Your task to perform on an android device: change the upload size in google photos Image 0: 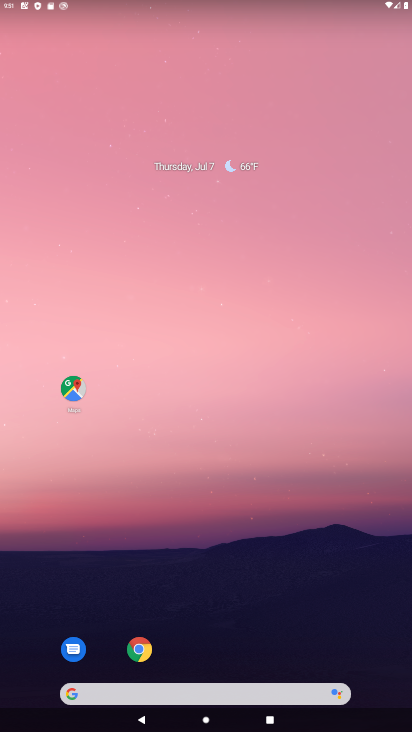
Step 0: press home button
Your task to perform on an android device: change the upload size in google photos Image 1: 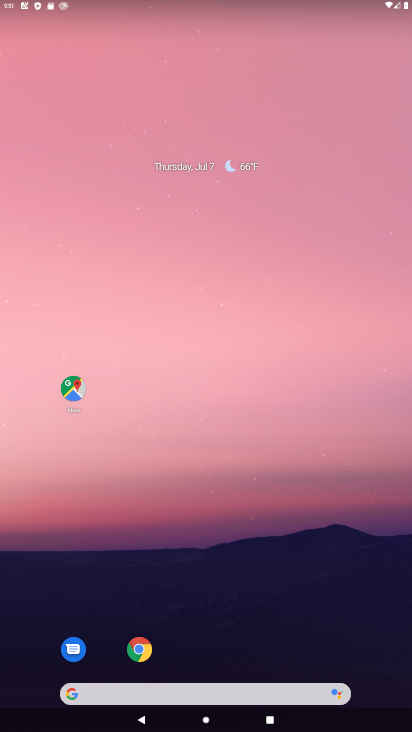
Step 1: drag from (166, 657) to (222, 68)
Your task to perform on an android device: change the upload size in google photos Image 2: 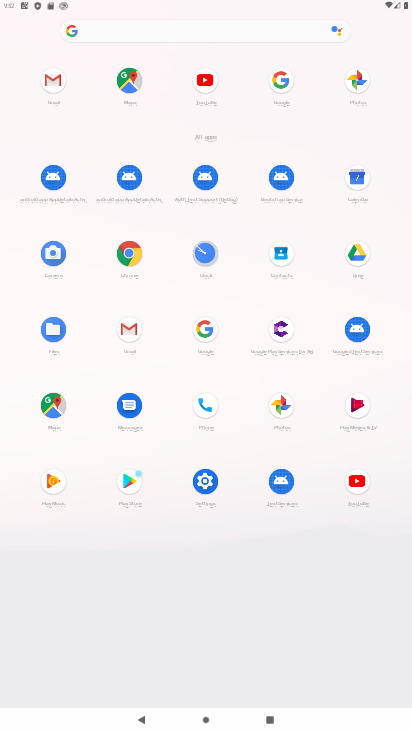
Step 2: click (356, 76)
Your task to perform on an android device: change the upload size in google photos Image 3: 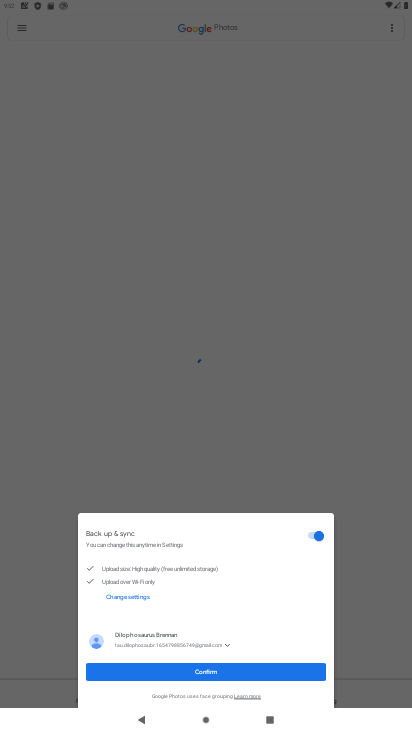
Step 3: click (201, 671)
Your task to perform on an android device: change the upload size in google photos Image 4: 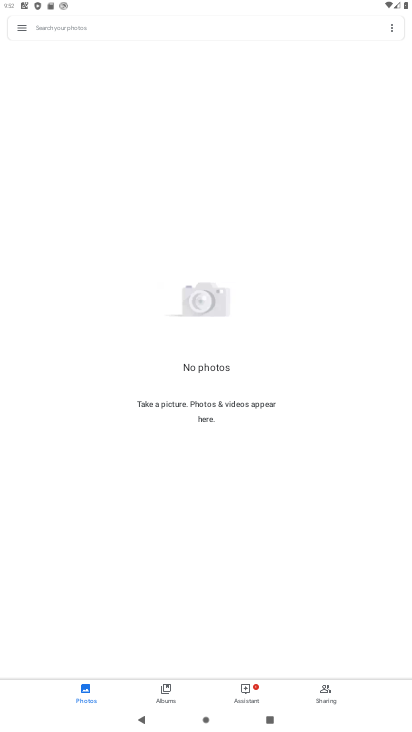
Step 4: click (25, 25)
Your task to perform on an android device: change the upload size in google photos Image 5: 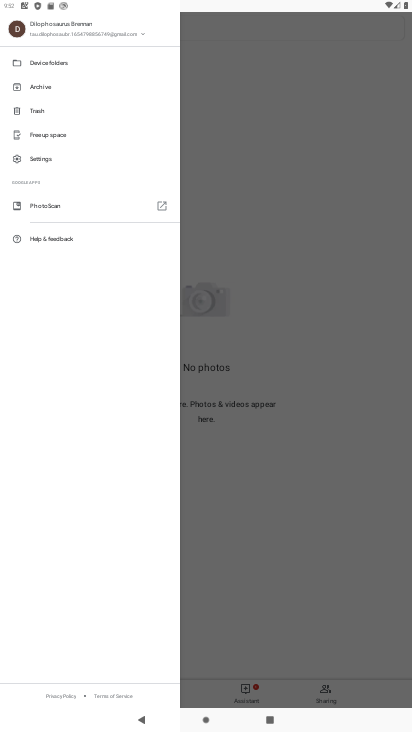
Step 5: click (25, 37)
Your task to perform on an android device: change the upload size in google photos Image 6: 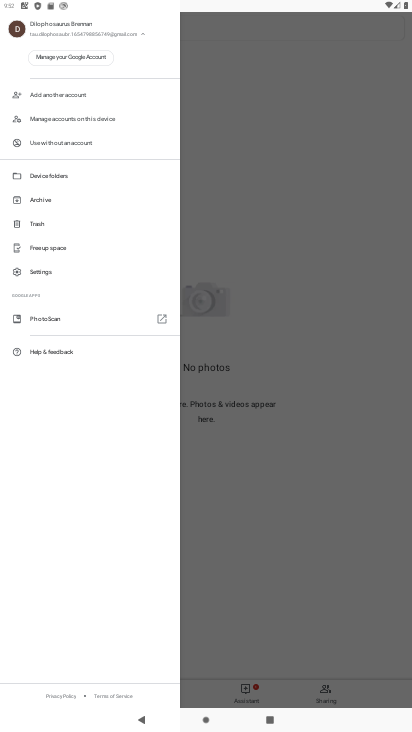
Step 6: click (58, 278)
Your task to perform on an android device: change the upload size in google photos Image 7: 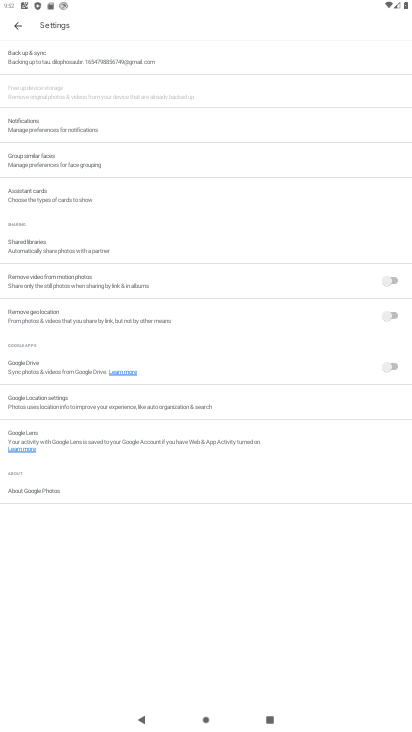
Step 7: click (86, 57)
Your task to perform on an android device: change the upload size in google photos Image 8: 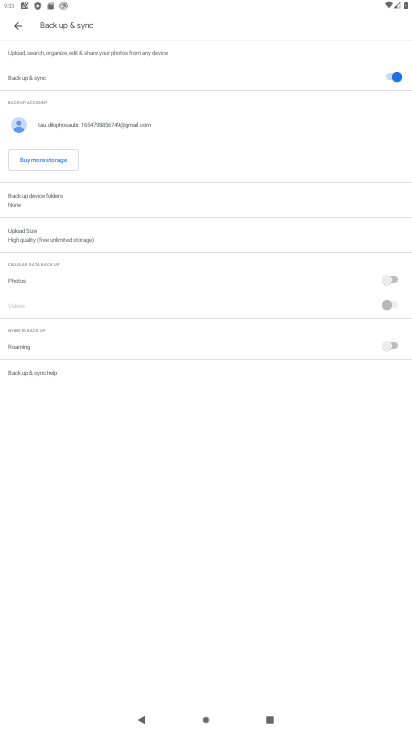
Step 8: click (54, 234)
Your task to perform on an android device: change the upload size in google photos Image 9: 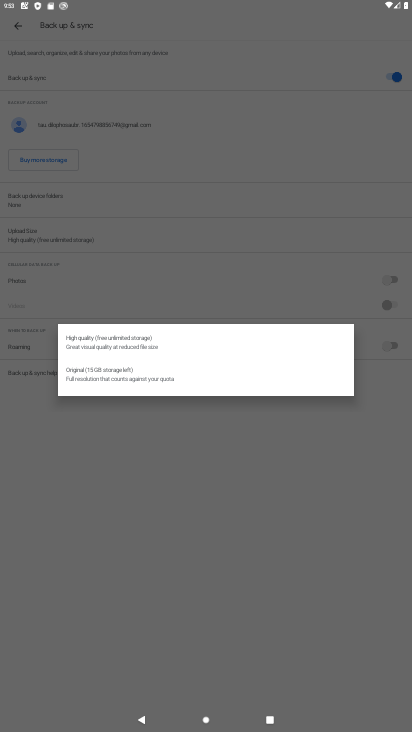
Step 9: click (99, 373)
Your task to perform on an android device: change the upload size in google photos Image 10: 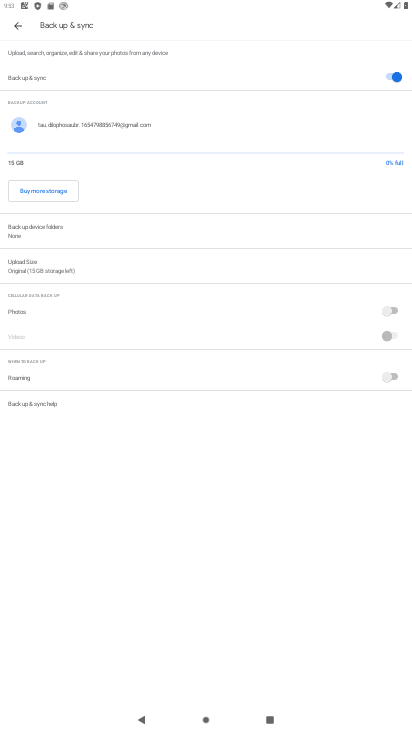
Step 10: task complete